Your task to perform on an android device: turn off smart reply in the gmail app Image 0: 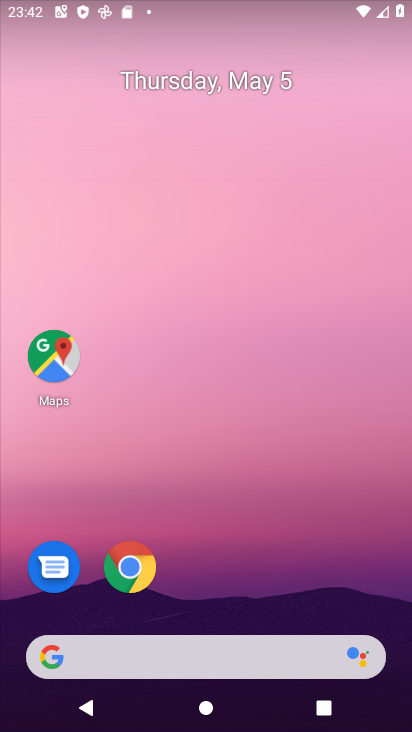
Step 0: drag from (185, 525) to (194, 277)
Your task to perform on an android device: turn off smart reply in the gmail app Image 1: 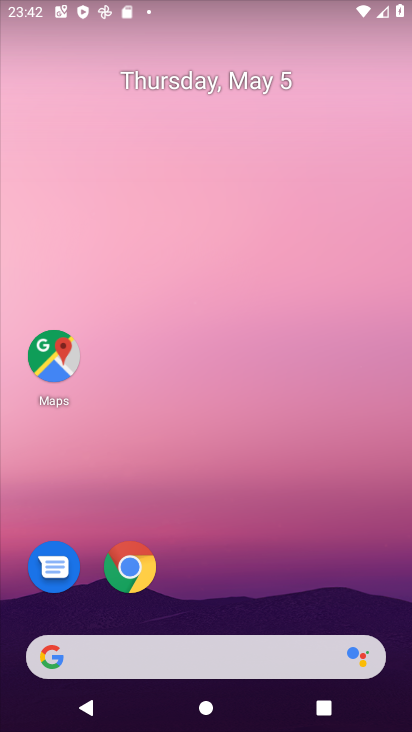
Step 1: drag from (217, 604) to (217, 67)
Your task to perform on an android device: turn off smart reply in the gmail app Image 2: 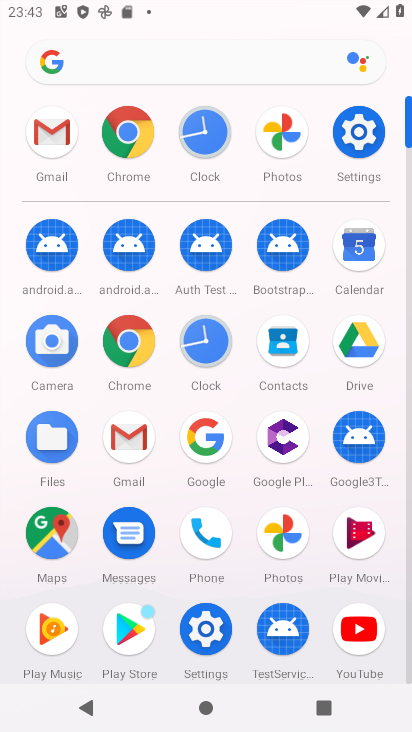
Step 2: click (41, 154)
Your task to perform on an android device: turn off smart reply in the gmail app Image 3: 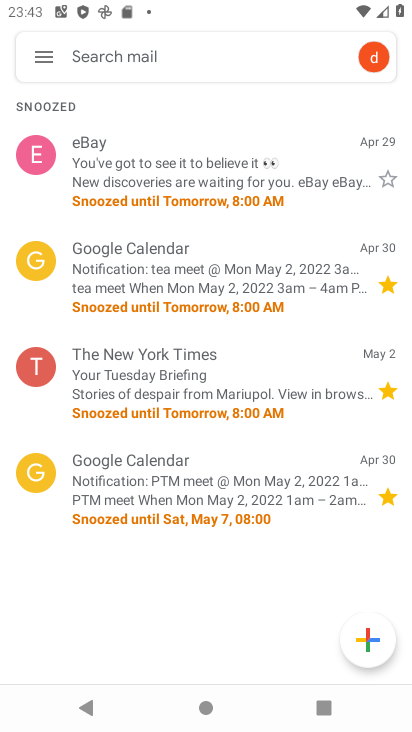
Step 3: click (40, 49)
Your task to perform on an android device: turn off smart reply in the gmail app Image 4: 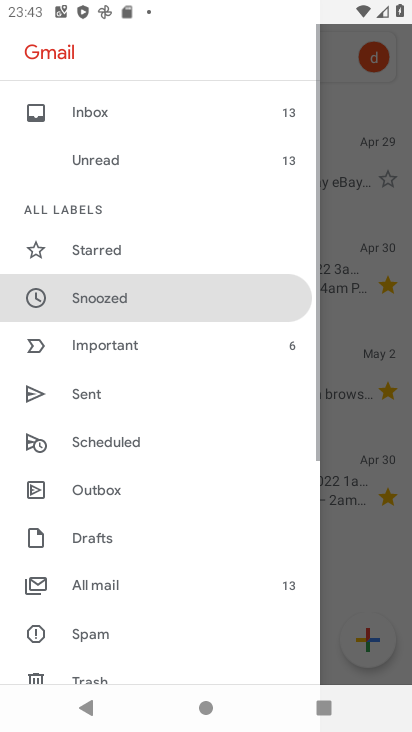
Step 4: drag from (112, 657) to (115, 343)
Your task to perform on an android device: turn off smart reply in the gmail app Image 5: 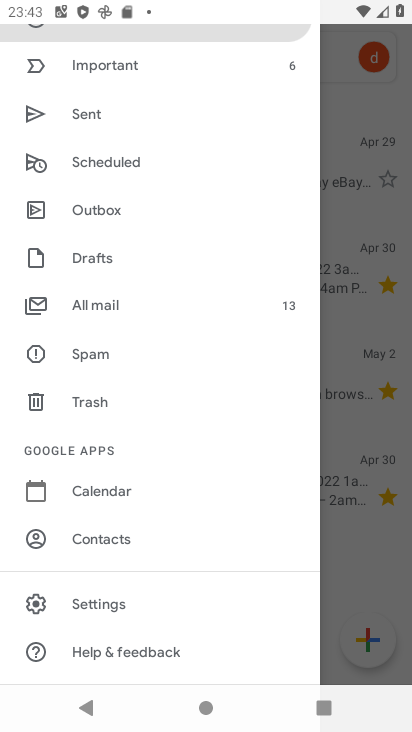
Step 5: click (107, 594)
Your task to perform on an android device: turn off smart reply in the gmail app Image 6: 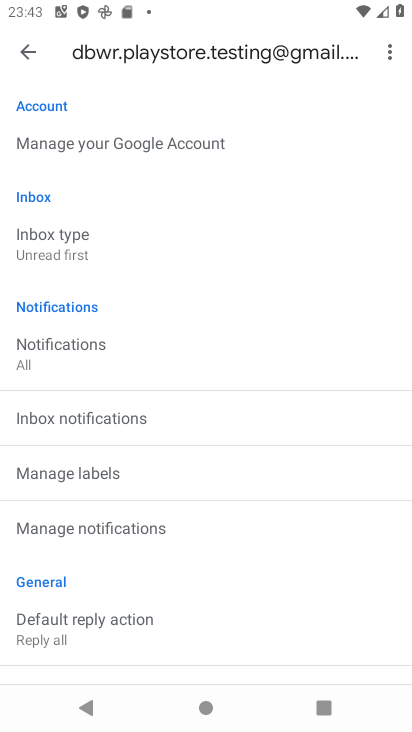
Step 6: drag from (162, 599) to (168, 208)
Your task to perform on an android device: turn off smart reply in the gmail app Image 7: 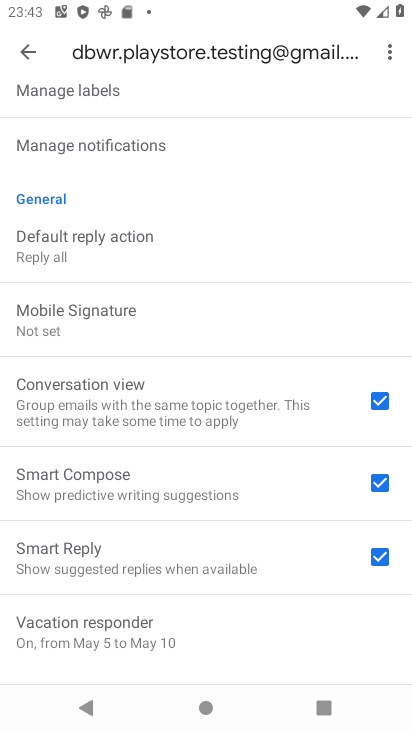
Step 7: click (377, 558)
Your task to perform on an android device: turn off smart reply in the gmail app Image 8: 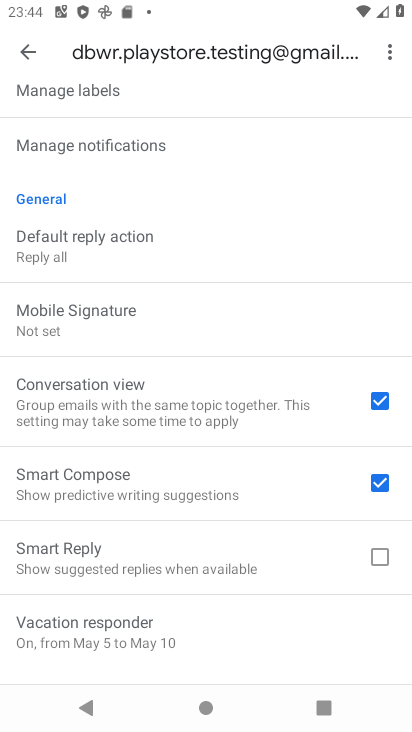
Step 8: task complete